Your task to perform on an android device: Search for vegetarian restaurants on Maps Image 0: 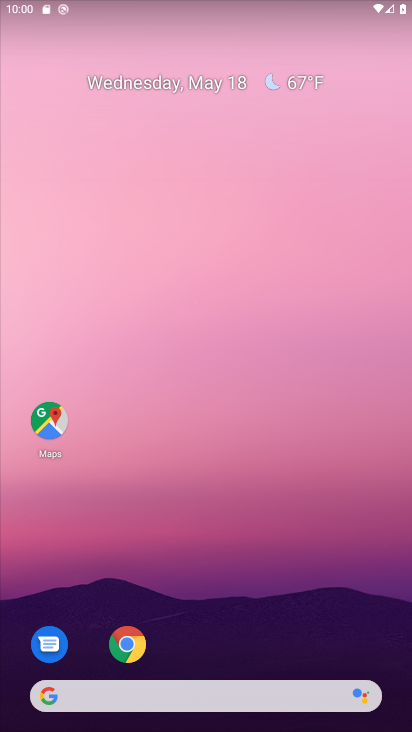
Step 0: click (47, 422)
Your task to perform on an android device: Search for vegetarian restaurants on Maps Image 1: 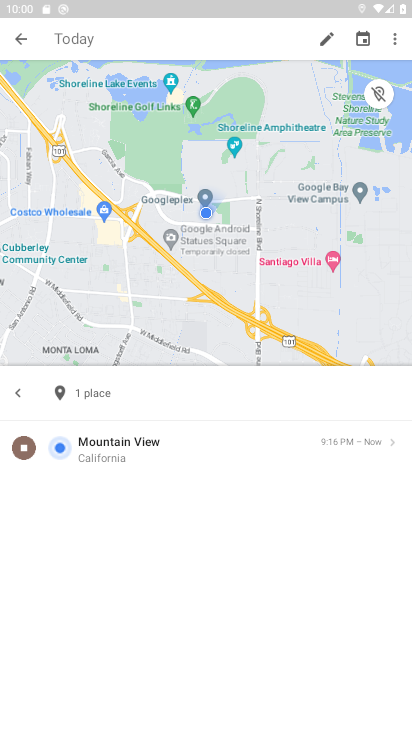
Step 1: press back button
Your task to perform on an android device: Search for vegetarian restaurants on Maps Image 2: 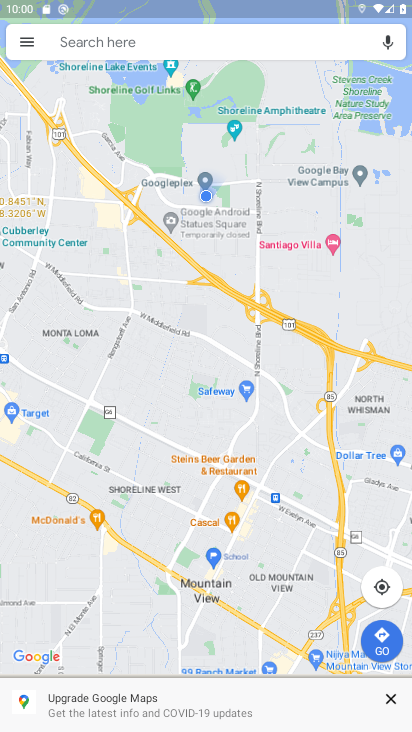
Step 2: click (263, 40)
Your task to perform on an android device: Search for vegetarian restaurants on Maps Image 3: 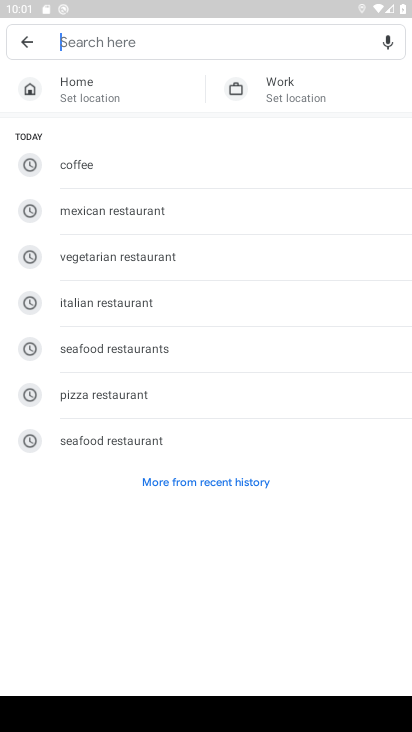
Step 3: type "vegetarian restaurants"
Your task to perform on an android device: Search for vegetarian restaurants on Maps Image 4: 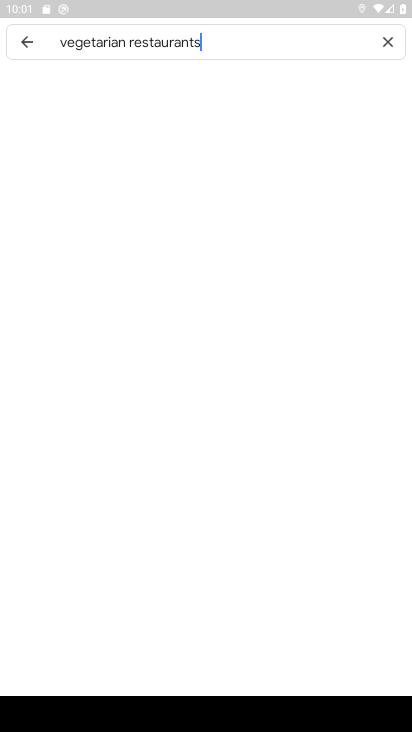
Step 4: type ""
Your task to perform on an android device: Search for vegetarian restaurants on Maps Image 5: 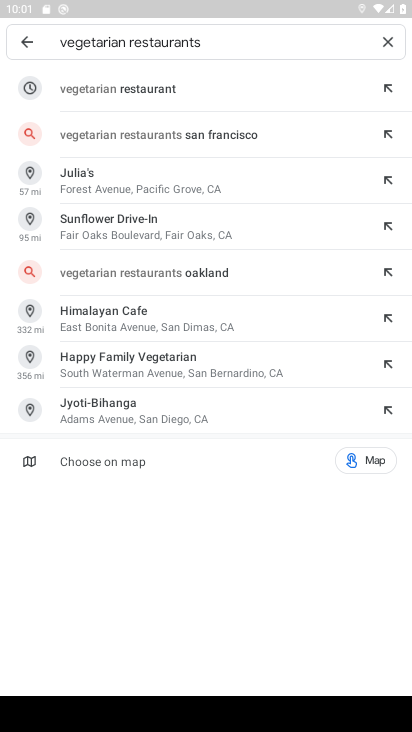
Step 5: click (143, 89)
Your task to perform on an android device: Search for vegetarian restaurants on Maps Image 6: 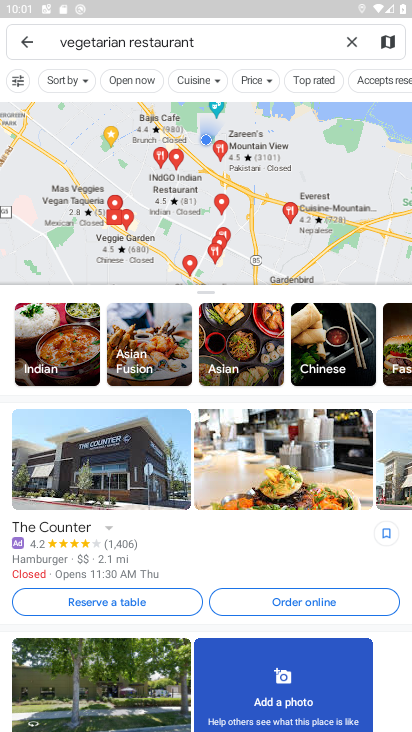
Step 6: task complete